Your task to perform on an android device: open app "Pinterest" (install if not already installed), go to login, and select forgot password Image 0: 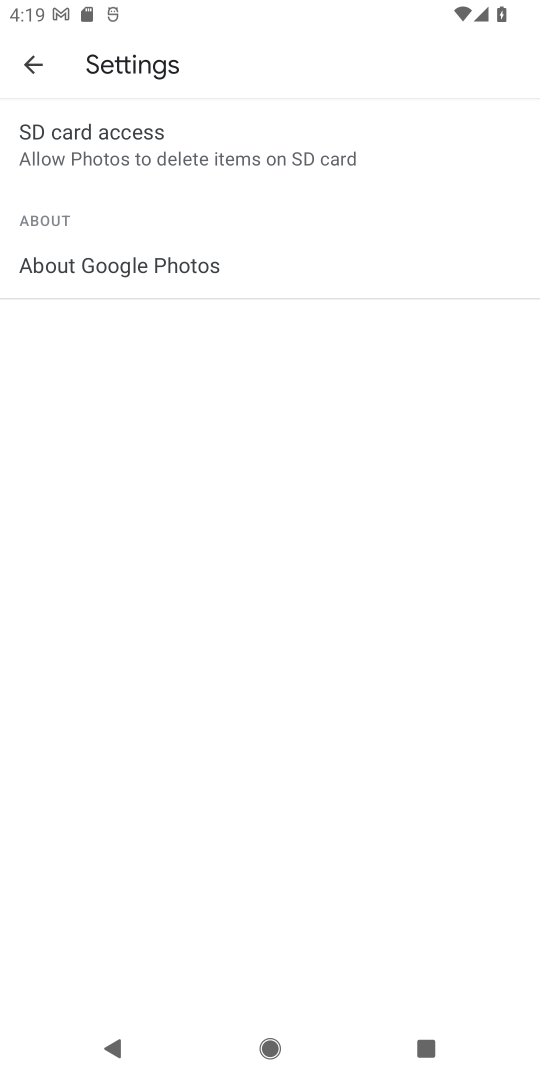
Step 0: press home button
Your task to perform on an android device: open app "Pinterest" (install if not already installed), go to login, and select forgot password Image 1: 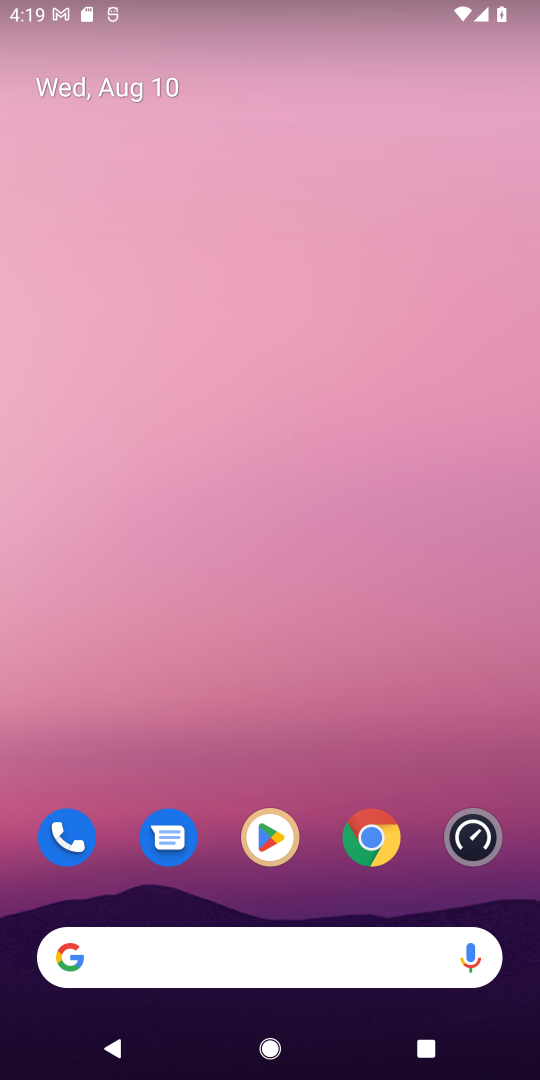
Step 1: click (268, 835)
Your task to perform on an android device: open app "Pinterest" (install if not already installed), go to login, and select forgot password Image 2: 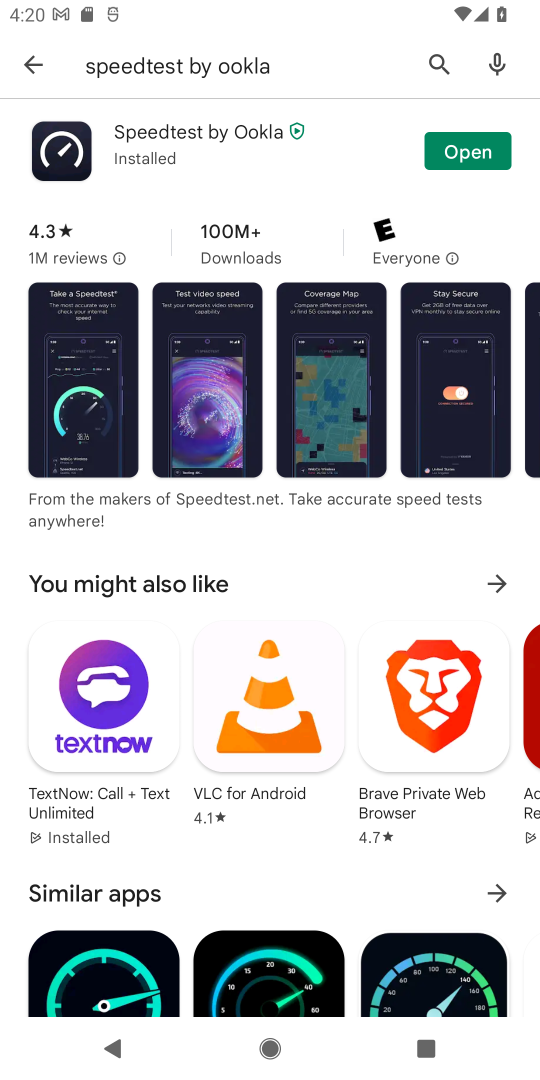
Step 2: click (432, 58)
Your task to perform on an android device: open app "Pinterest" (install if not already installed), go to login, and select forgot password Image 3: 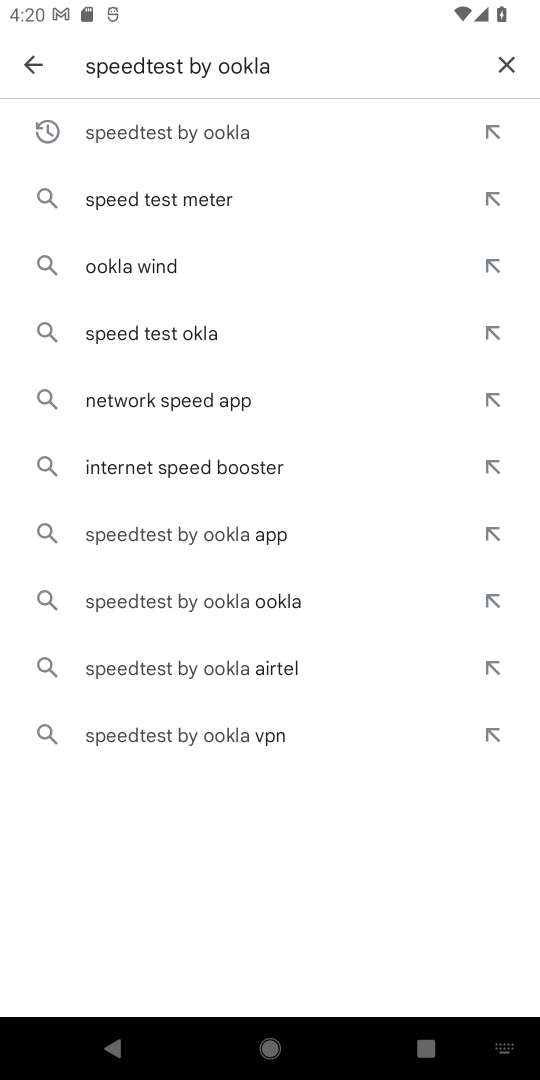
Step 3: click (496, 65)
Your task to perform on an android device: open app "Pinterest" (install if not already installed), go to login, and select forgot password Image 4: 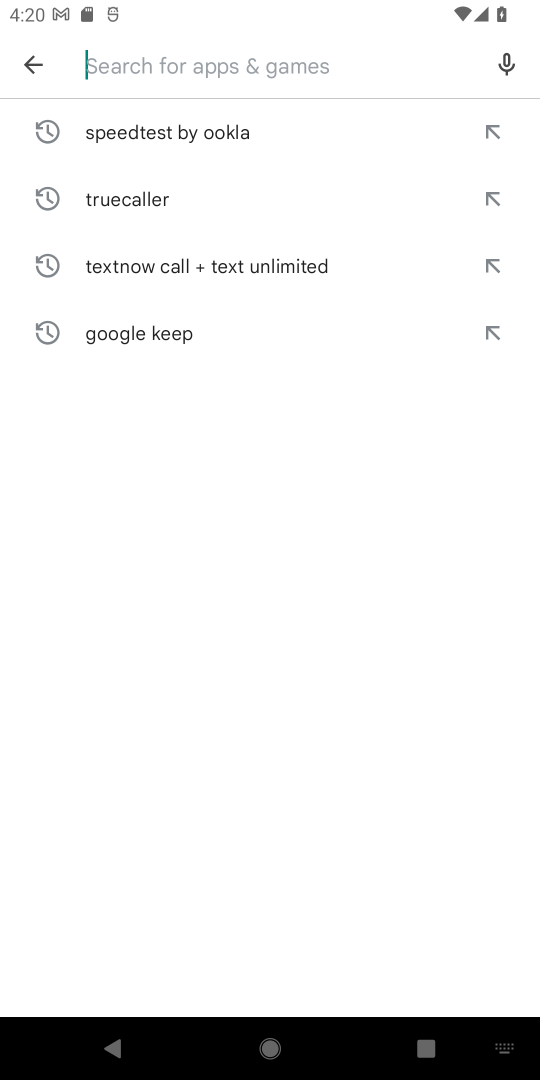
Step 4: type "Pinterest"
Your task to perform on an android device: open app "Pinterest" (install if not already installed), go to login, and select forgot password Image 5: 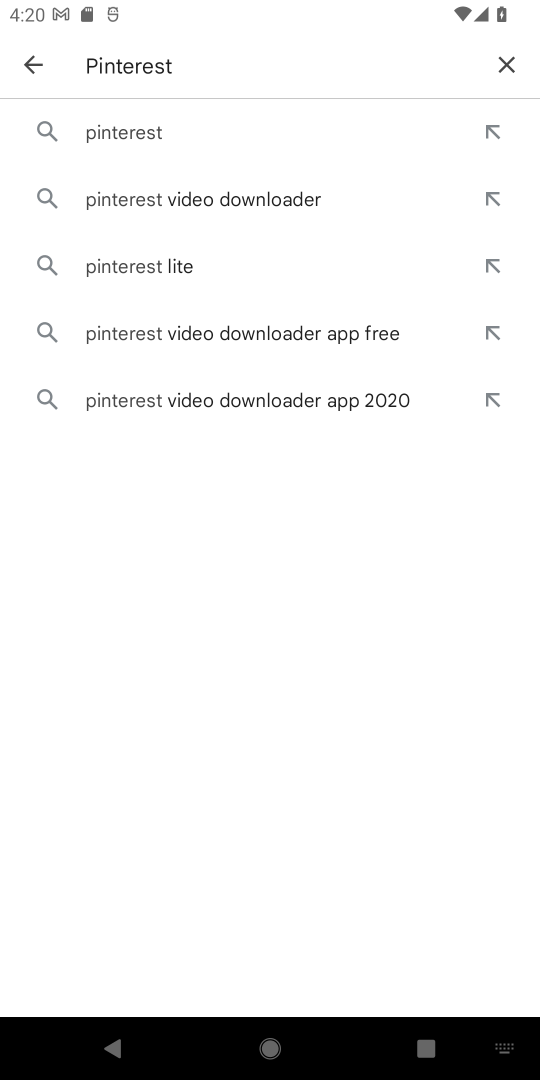
Step 5: click (135, 125)
Your task to perform on an android device: open app "Pinterest" (install if not already installed), go to login, and select forgot password Image 6: 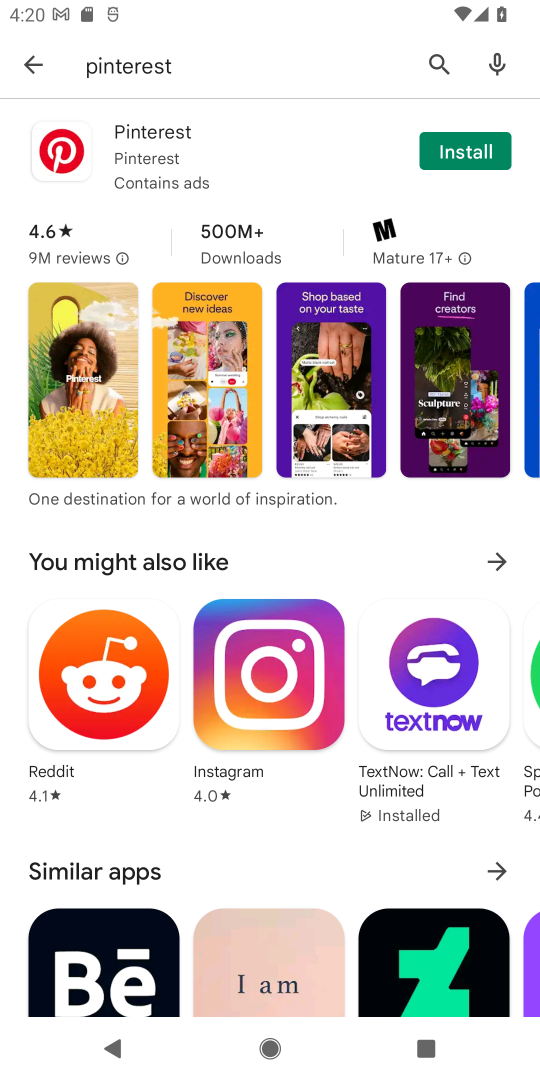
Step 6: click (474, 151)
Your task to perform on an android device: open app "Pinterest" (install if not already installed), go to login, and select forgot password Image 7: 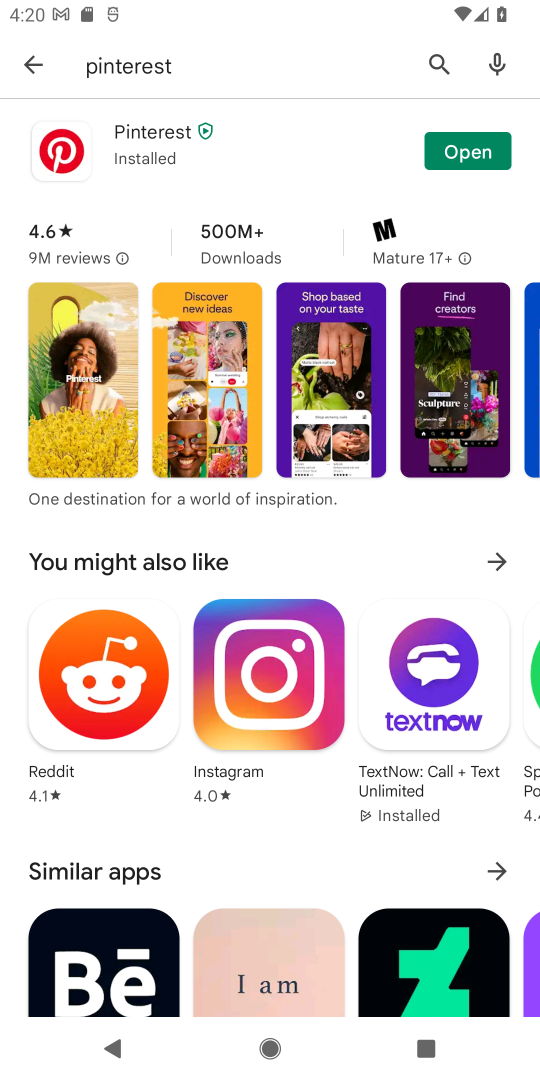
Step 7: click (477, 146)
Your task to perform on an android device: open app "Pinterest" (install if not already installed), go to login, and select forgot password Image 8: 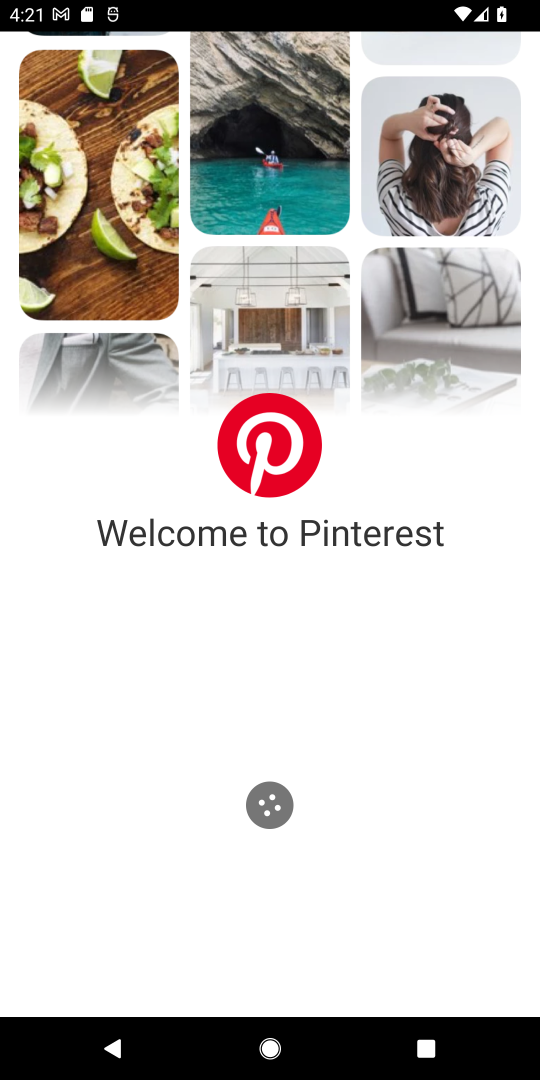
Step 8: task complete